Your task to perform on an android device: Open notification settings Image 0: 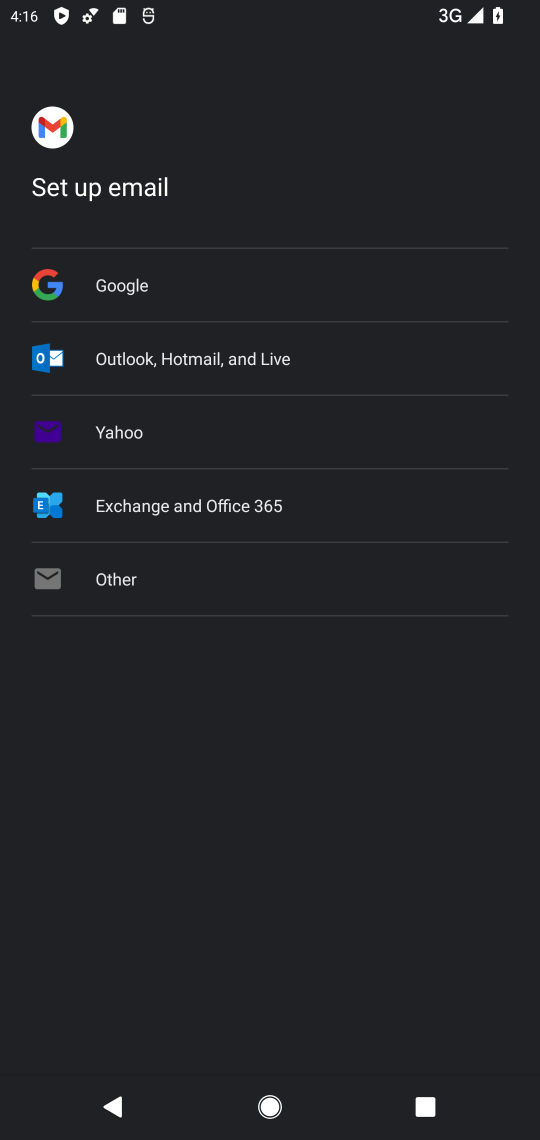
Step 0: task complete